Your task to perform on an android device: Go to network settings Image 0: 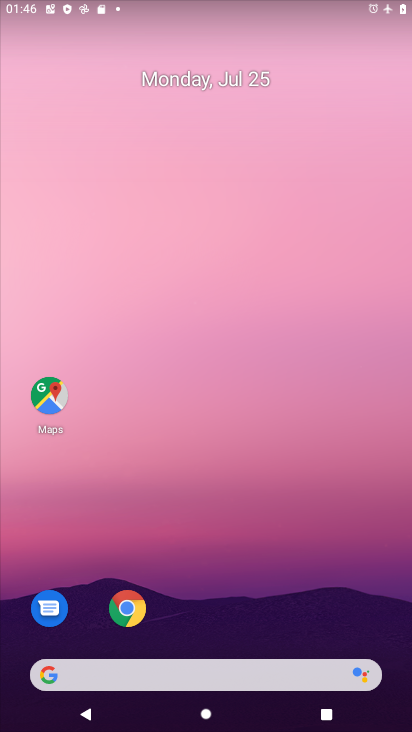
Step 0: drag from (210, 648) to (334, 359)
Your task to perform on an android device: Go to network settings Image 1: 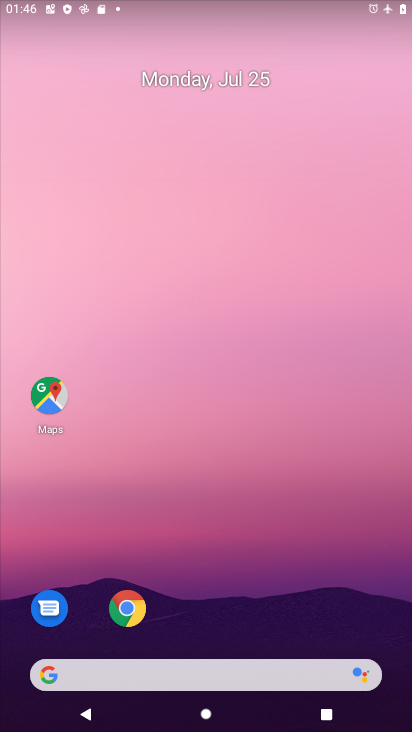
Step 1: click (259, 116)
Your task to perform on an android device: Go to network settings Image 2: 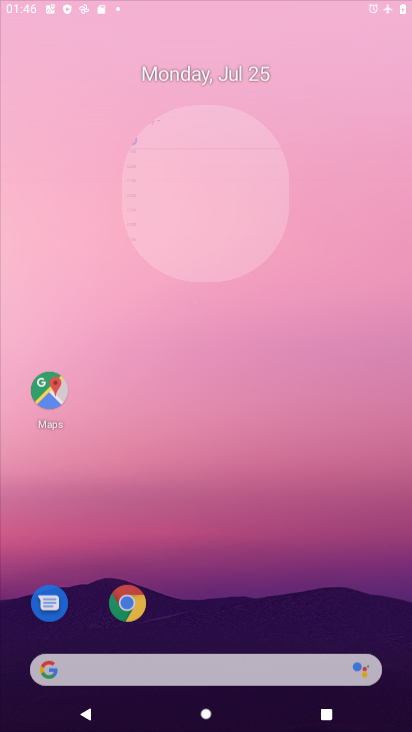
Step 2: drag from (183, 614) to (159, 75)
Your task to perform on an android device: Go to network settings Image 3: 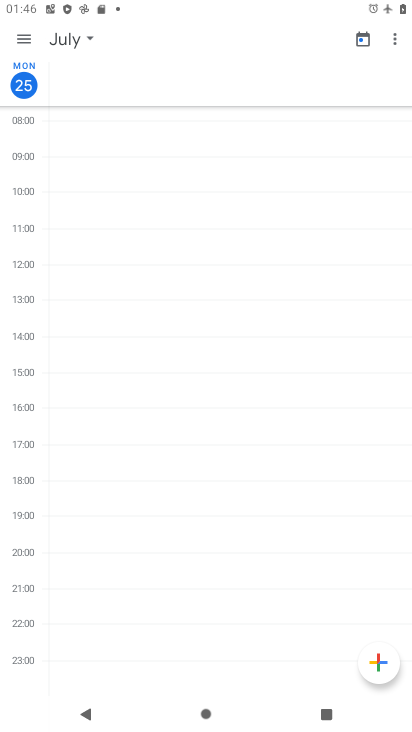
Step 3: press home button
Your task to perform on an android device: Go to network settings Image 4: 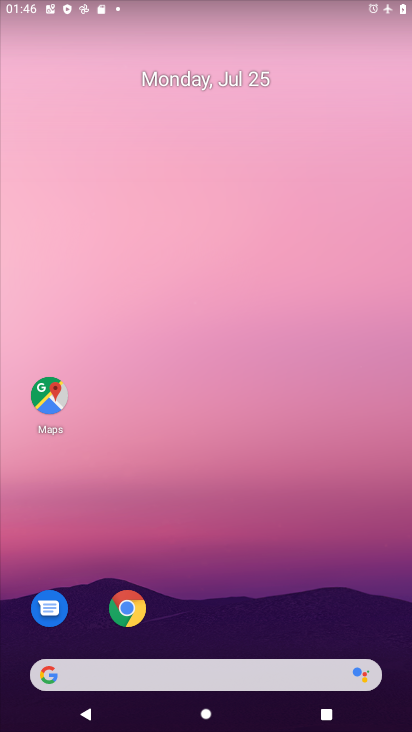
Step 4: drag from (196, 645) to (184, 78)
Your task to perform on an android device: Go to network settings Image 5: 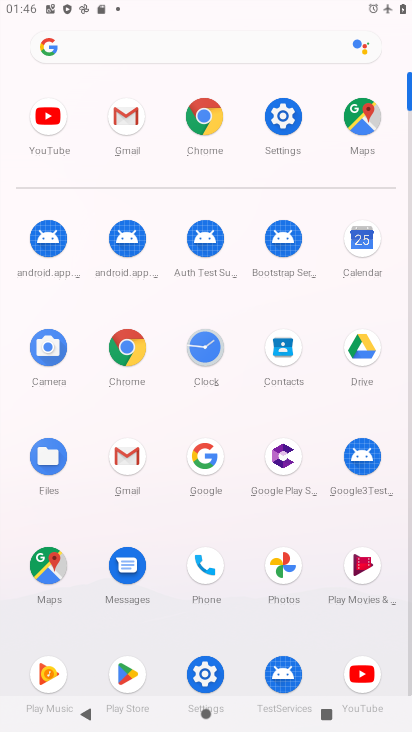
Step 5: click (279, 129)
Your task to perform on an android device: Go to network settings Image 6: 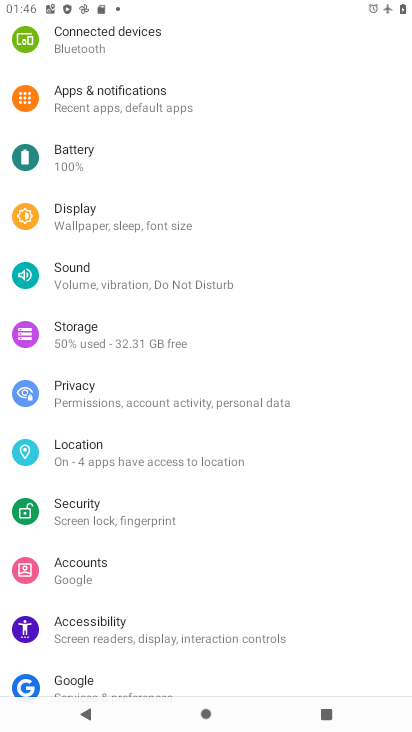
Step 6: drag from (134, 95) to (109, 455)
Your task to perform on an android device: Go to network settings Image 7: 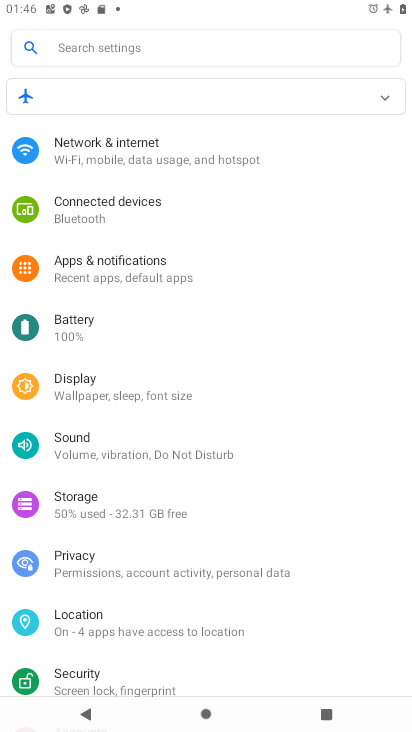
Step 7: click (124, 167)
Your task to perform on an android device: Go to network settings Image 8: 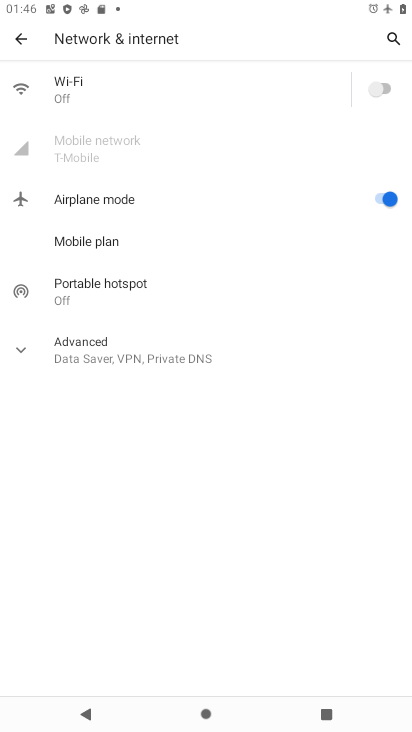
Step 8: task complete